Your task to perform on an android device: turn on bluetooth scan Image 0: 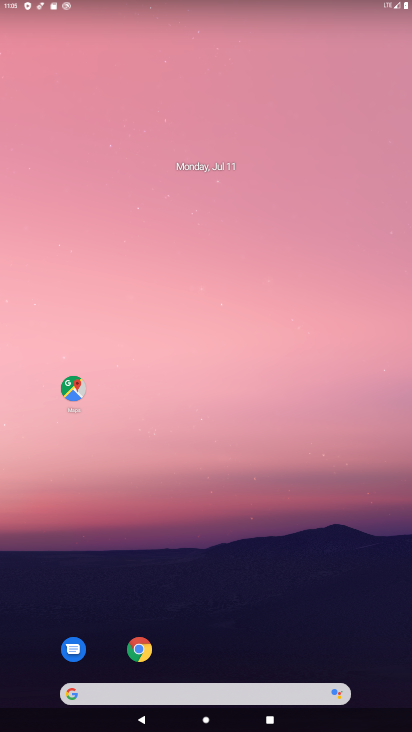
Step 0: drag from (255, 478) to (246, 125)
Your task to perform on an android device: turn on bluetooth scan Image 1: 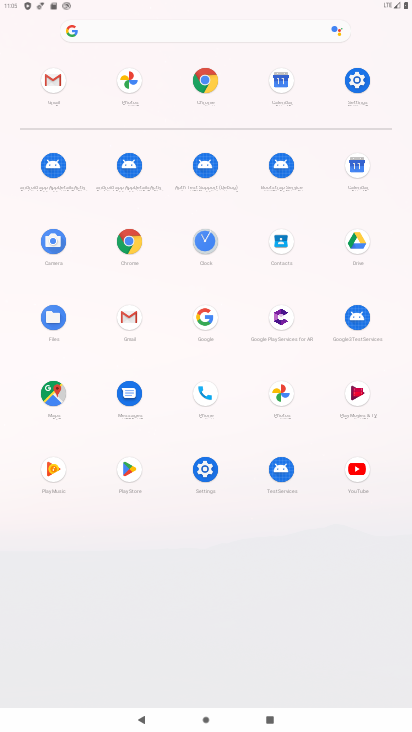
Step 1: click (364, 79)
Your task to perform on an android device: turn on bluetooth scan Image 2: 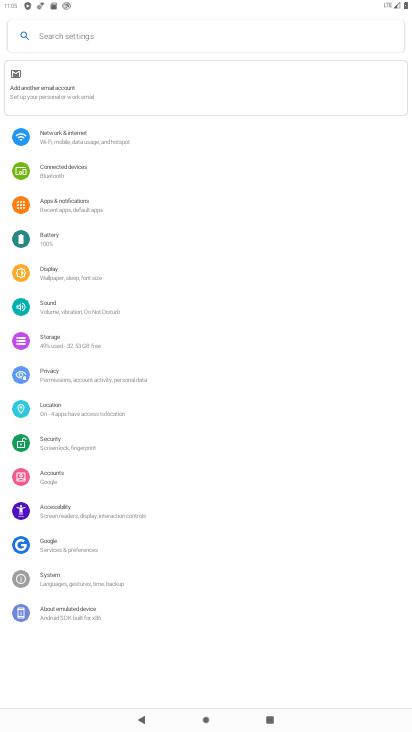
Step 2: click (59, 409)
Your task to perform on an android device: turn on bluetooth scan Image 3: 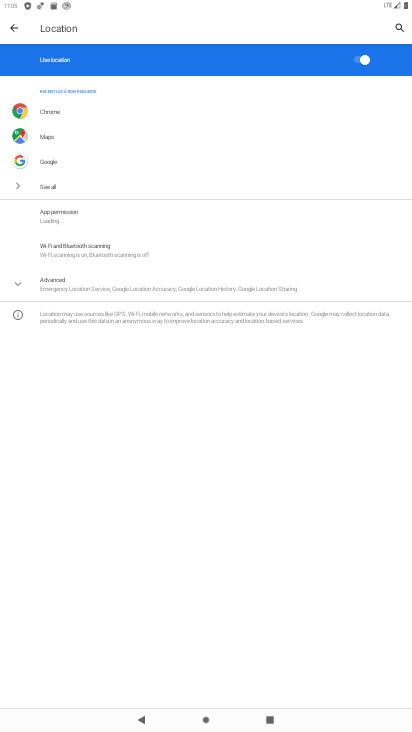
Step 3: click (102, 289)
Your task to perform on an android device: turn on bluetooth scan Image 4: 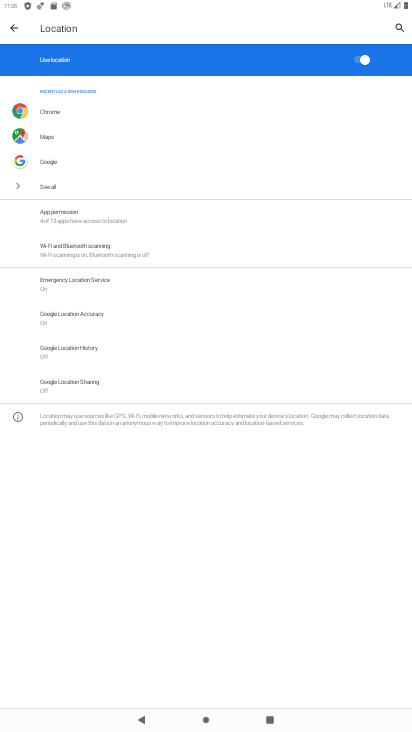
Step 4: click (106, 252)
Your task to perform on an android device: turn on bluetooth scan Image 5: 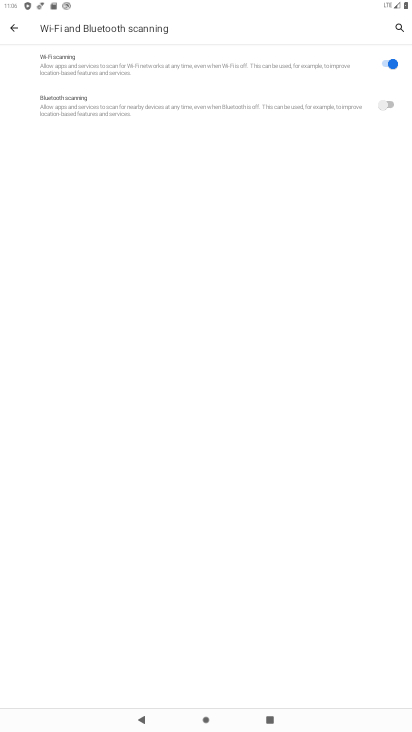
Step 5: click (391, 100)
Your task to perform on an android device: turn on bluetooth scan Image 6: 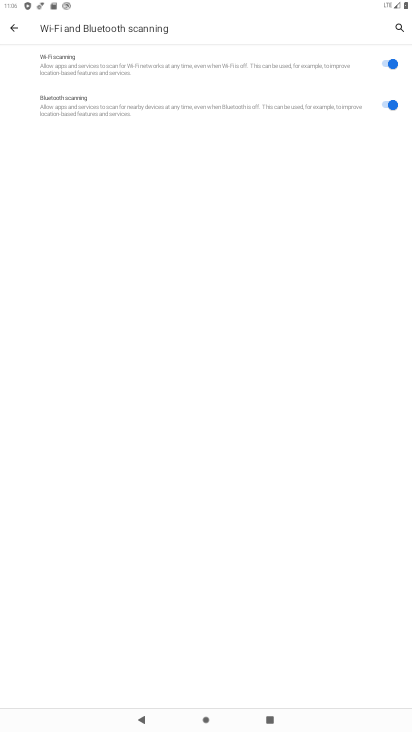
Step 6: task complete